Your task to perform on an android device: open sync settings in chrome Image 0: 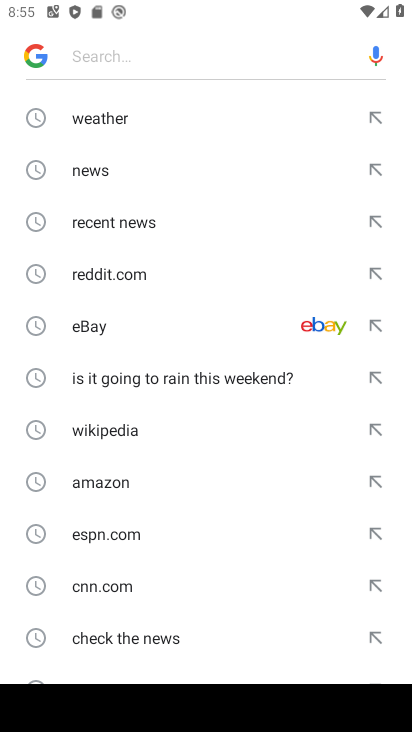
Step 0: press home button
Your task to perform on an android device: open sync settings in chrome Image 1: 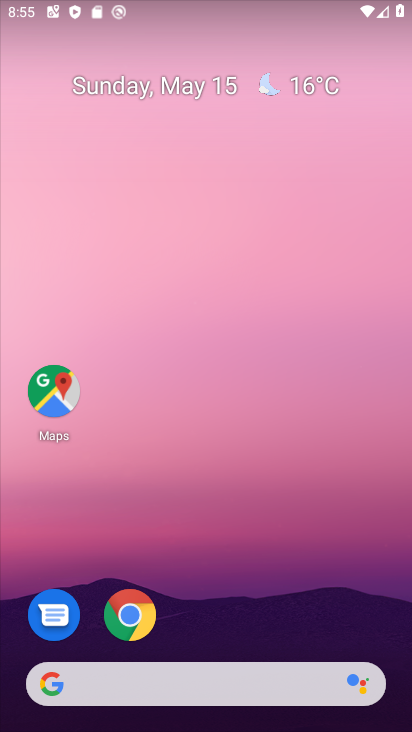
Step 1: click (147, 625)
Your task to perform on an android device: open sync settings in chrome Image 2: 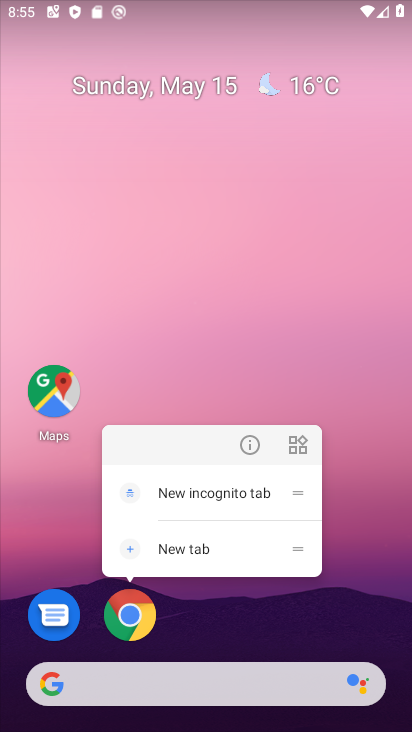
Step 2: click (140, 623)
Your task to perform on an android device: open sync settings in chrome Image 3: 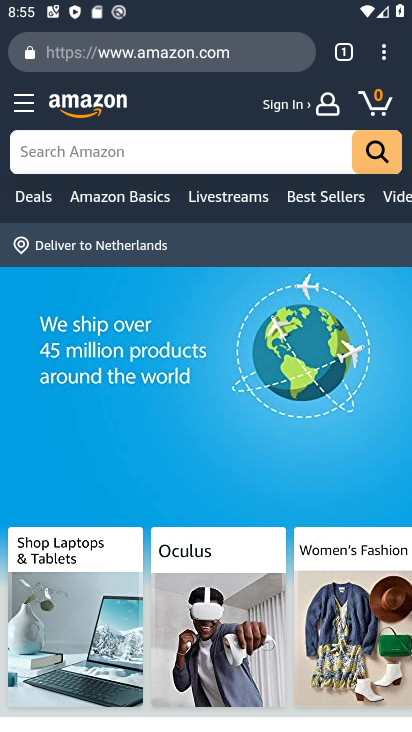
Step 3: click (385, 54)
Your task to perform on an android device: open sync settings in chrome Image 4: 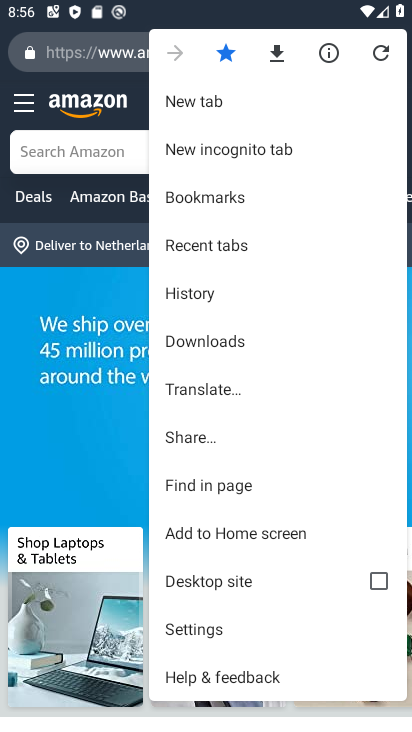
Step 4: click (203, 638)
Your task to perform on an android device: open sync settings in chrome Image 5: 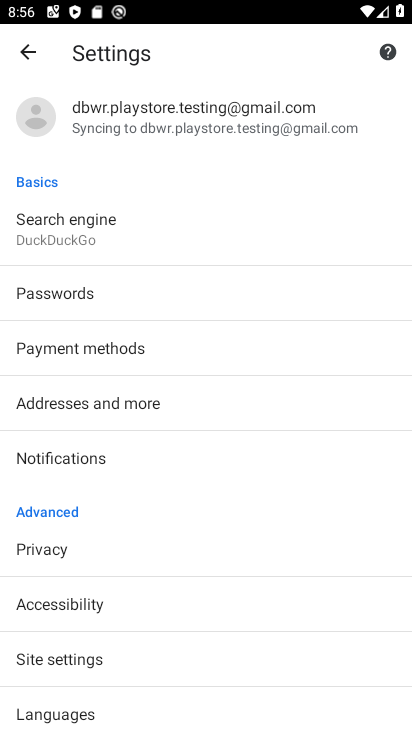
Step 5: click (92, 127)
Your task to perform on an android device: open sync settings in chrome Image 6: 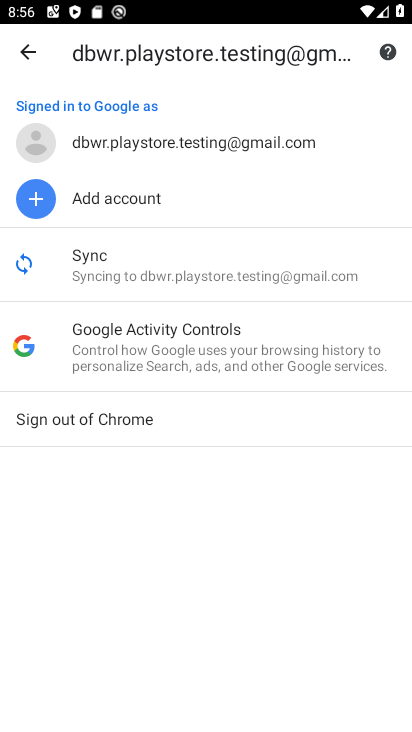
Step 6: click (126, 286)
Your task to perform on an android device: open sync settings in chrome Image 7: 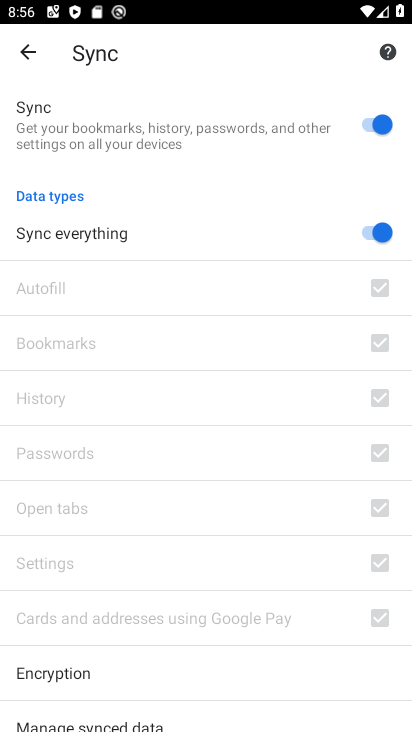
Step 7: task complete